Your task to perform on an android device: Go to calendar. Show me events next week Image 0: 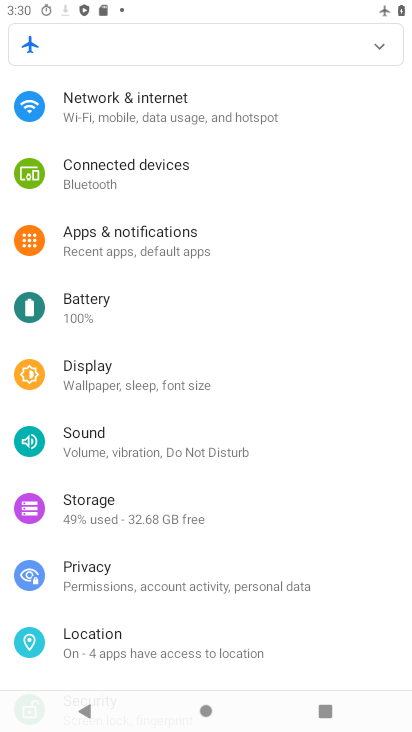
Step 0: drag from (142, 460) to (134, 237)
Your task to perform on an android device: Go to calendar. Show me events next week Image 1: 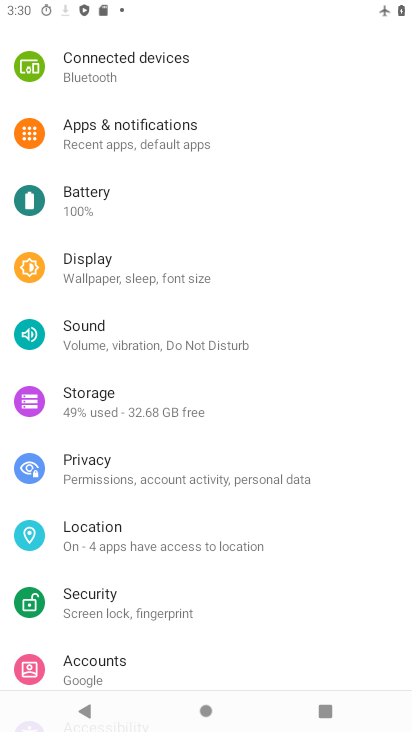
Step 1: drag from (144, 522) to (122, 209)
Your task to perform on an android device: Go to calendar. Show me events next week Image 2: 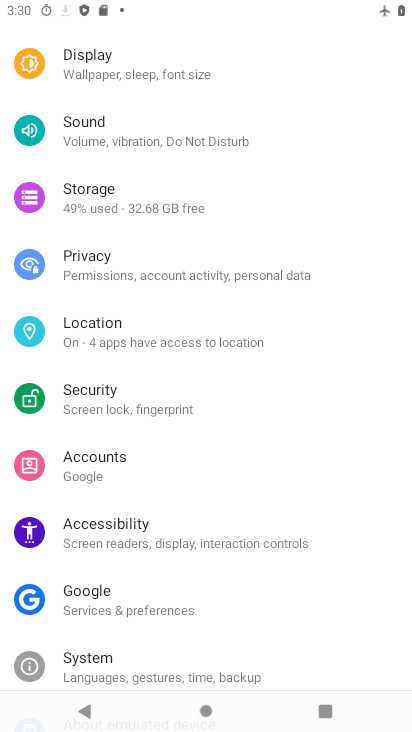
Step 2: drag from (128, 579) to (124, 268)
Your task to perform on an android device: Go to calendar. Show me events next week Image 3: 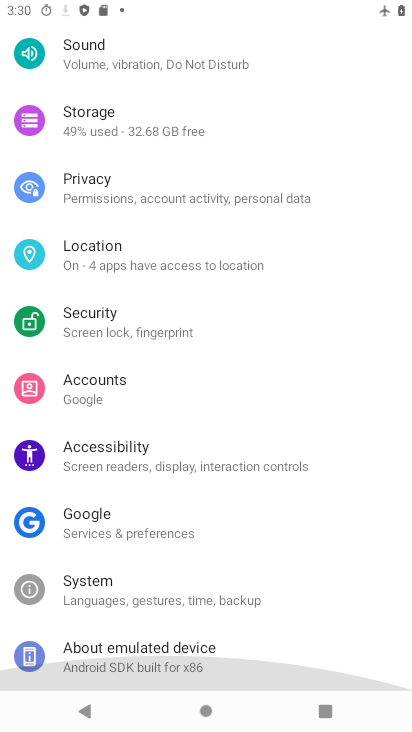
Step 3: drag from (149, 475) to (208, 234)
Your task to perform on an android device: Go to calendar. Show me events next week Image 4: 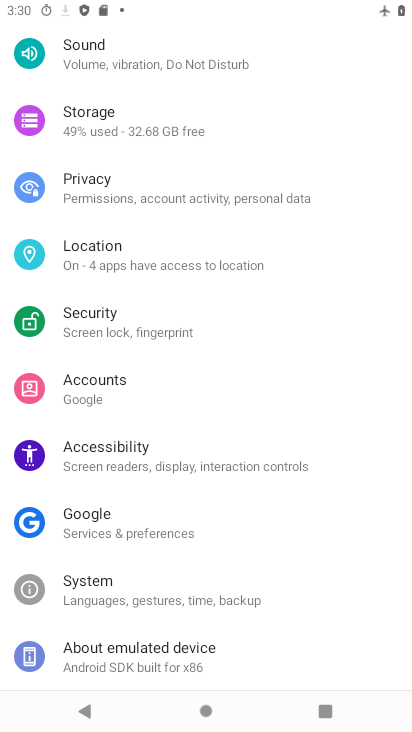
Step 4: drag from (225, 259) to (236, 624)
Your task to perform on an android device: Go to calendar. Show me events next week Image 5: 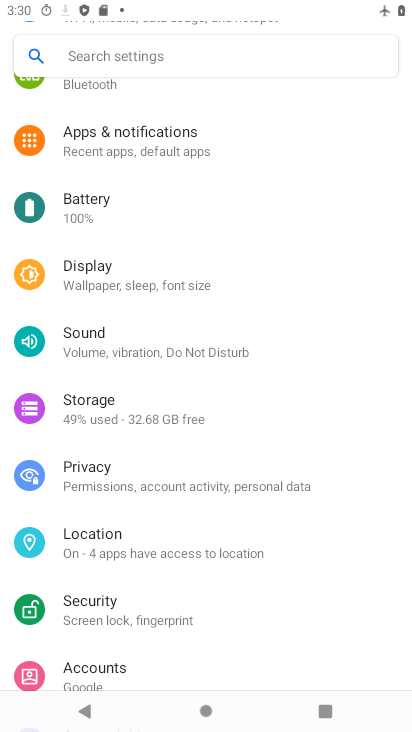
Step 5: drag from (238, 348) to (282, 614)
Your task to perform on an android device: Go to calendar. Show me events next week Image 6: 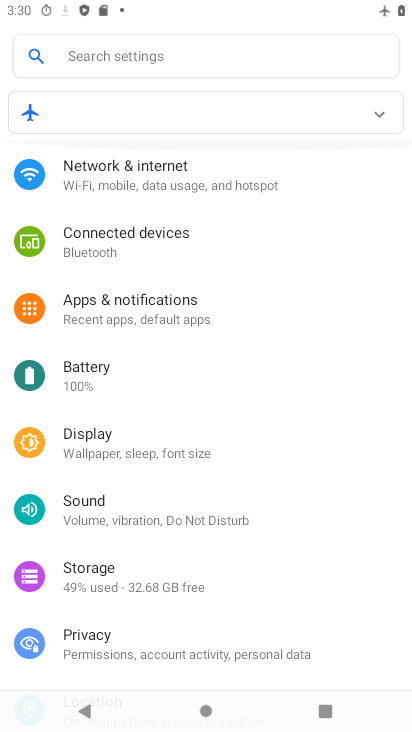
Step 6: press back button
Your task to perform on an android device: Go to calendar. Show me events next week Image 7: 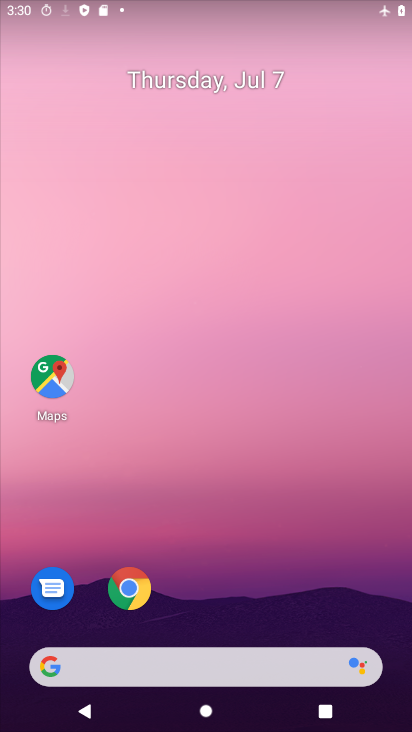
Step 7: click (86, 6)
Your task to perform on an android device: Go to calendar. Show me events next week Image 8: 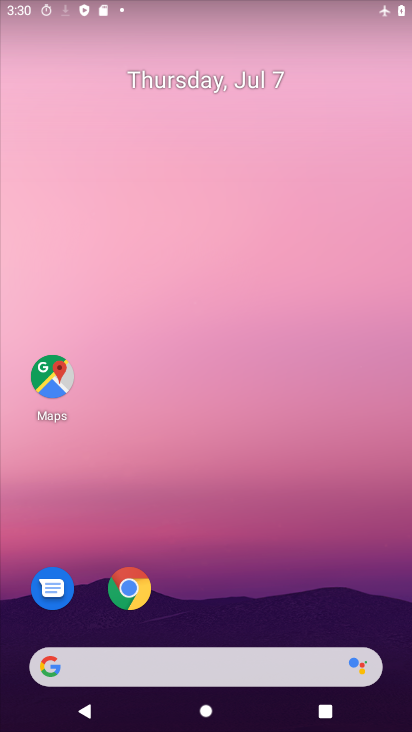
Step 8: drag from (323, 559) to (160, 52)
Your task to perform on an android device: Go to calendar. Show me events next week Image 9: 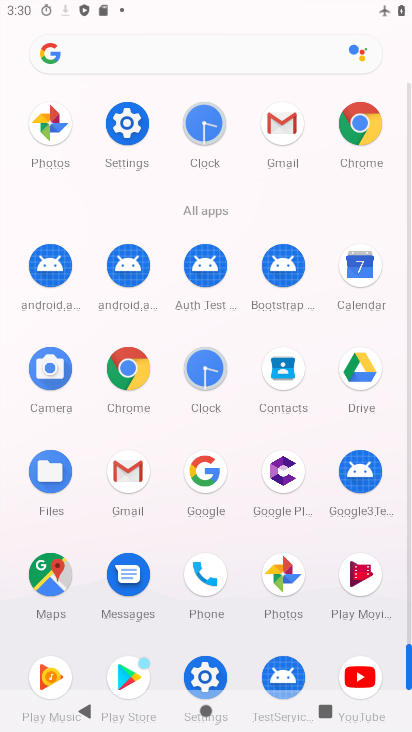
Step 9: drag from (266, 453) to (148, 110)
Your task to perform on an android device: Go to calendar. Show me events next week Image 10: 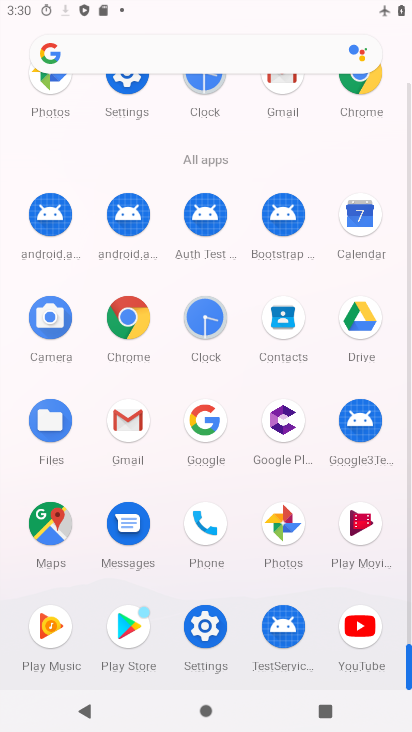
Step 10: click (363, 230)
Your task to perform on an android device: Go to calendar. Show me events next week Image 11: 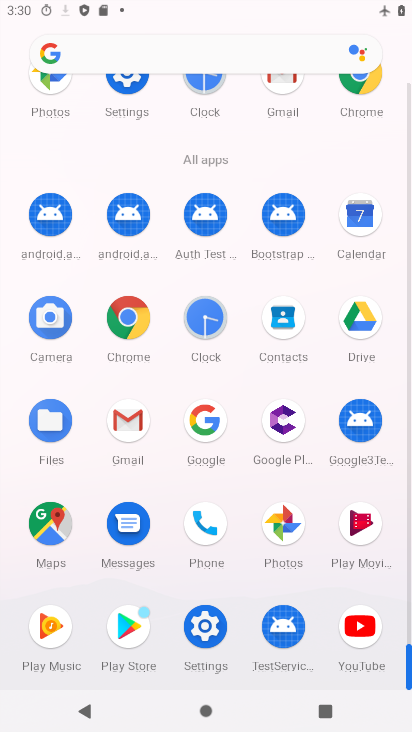
Step 11: click (363, 230)
Your task to perform on an android device: Go to calendar. Show me events next week Image 12: 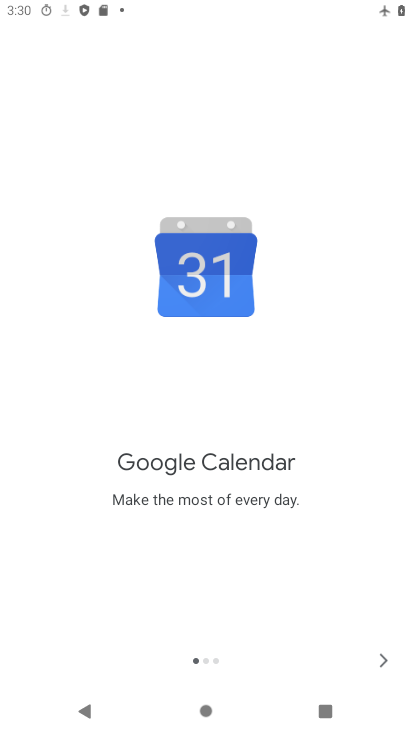
Step 12: click (364, 231)
Your task to perform on an android device: Go to calendar. Show me events next week Image 13: 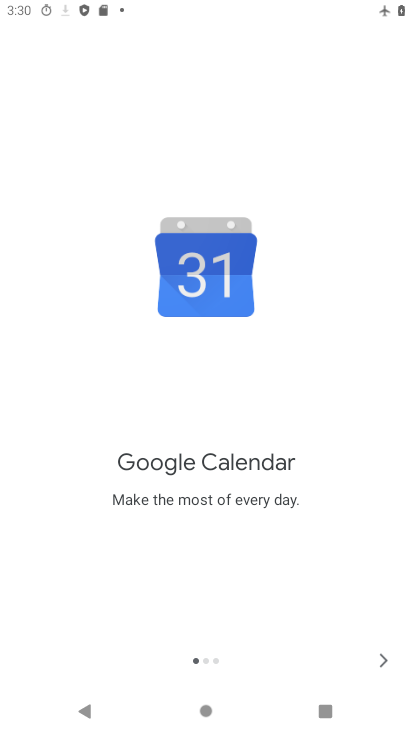
Step 13: click (383, 660)
Your task to perform on an android device: Go to calendar. Show me events next week Image 14: 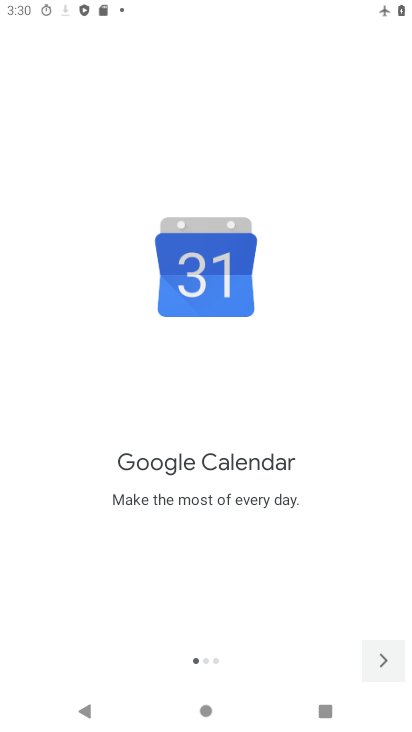
Step 14: click (386, 655)
Your task to perform on an android device: Go to calendar. Show me events next week Image 15: 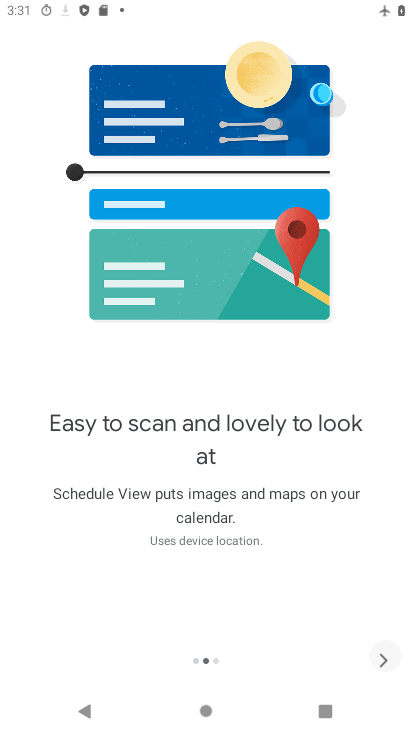
Step 15: click (392, 650)
Your task to perform on an android device: Go to calendar. Show me events next week Image 16: 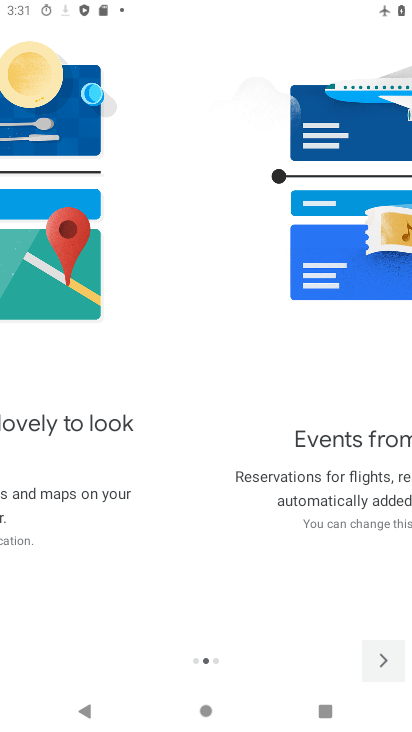
Step 16: click (393, 649)
Your task to perform on an android device: Go to calendar. Show me events next week Image 17: 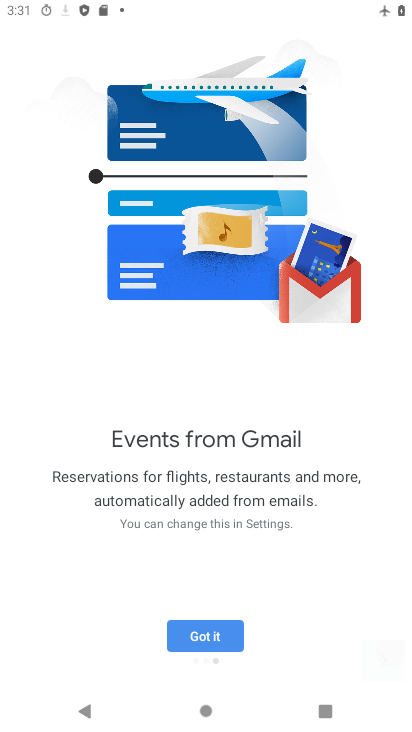
Step 17: click (393, 649)
Your task to perform on an android device: Go to calendar. Show me events next week Image 18: 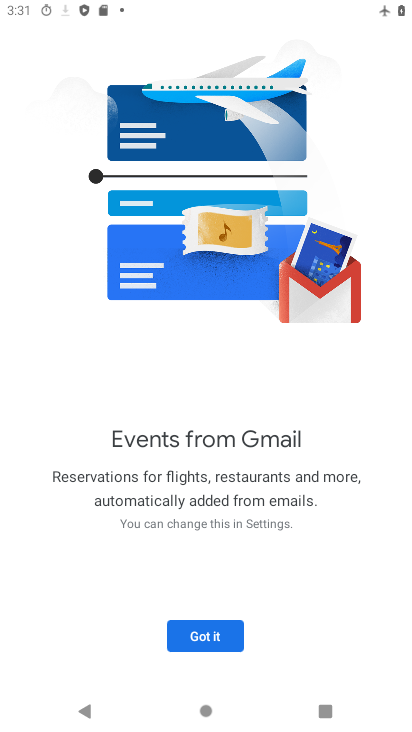
Step 18: click (393, 649)
Your task to perform on an android device: Go to calendar. Show me events next week Image 19: 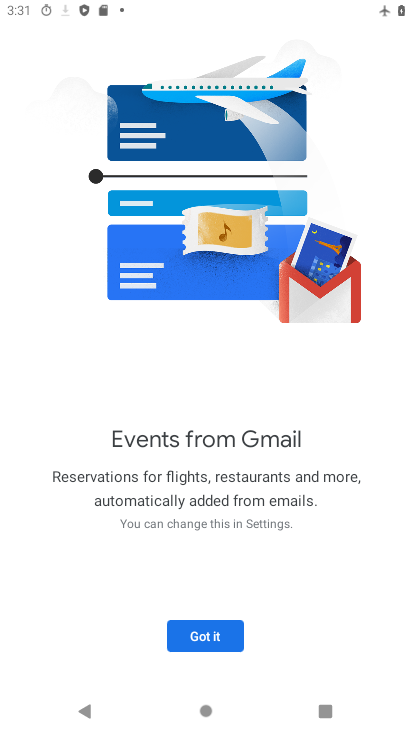
Step 19: click (389, 647)
Your task to perform on an android device: Go to calendar. Show me events next week Image 20: 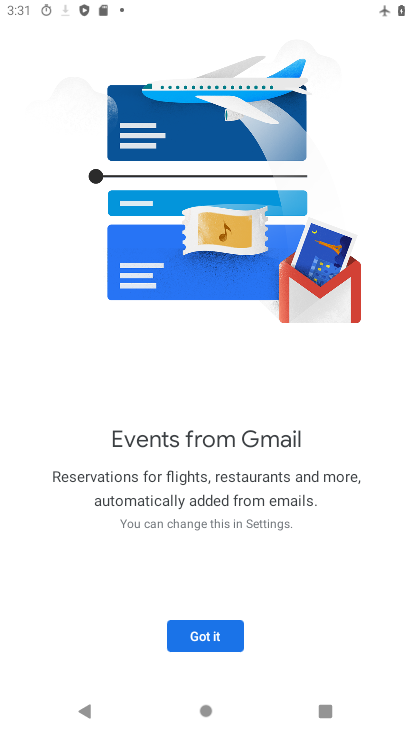
Step 20: click (219, 633)
Your task to perform on an android device: Go to calendar. Show me events next week Image 21: 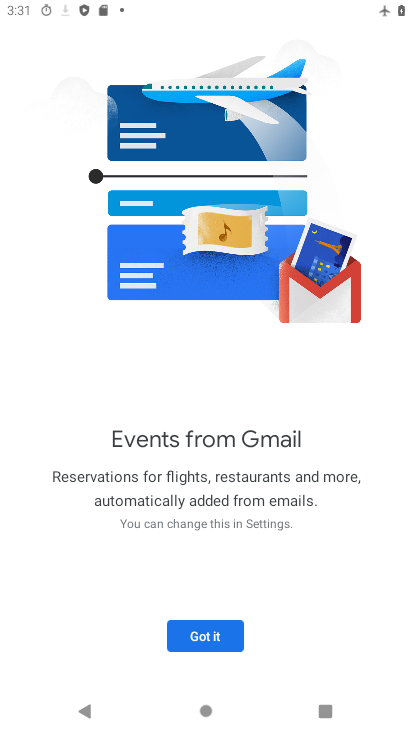
Step 21: click (219, 637)
Your task to perform on an android device: Go to calendar. Show me events next week Image 22: 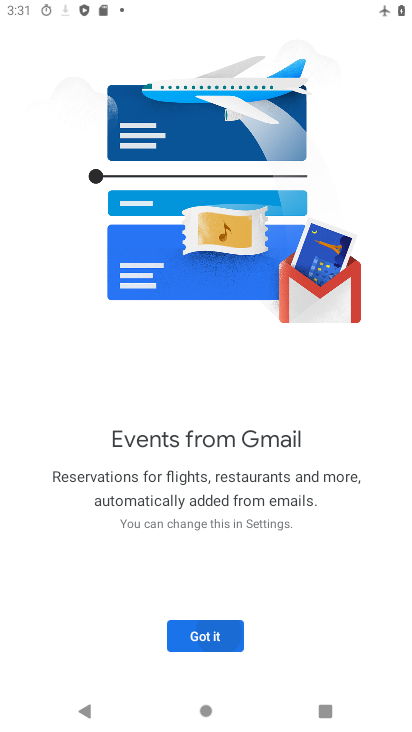
Step 22: click (219, 637)
Your task to perform on an android device: Go to calendar. Show me events next week Image 23: 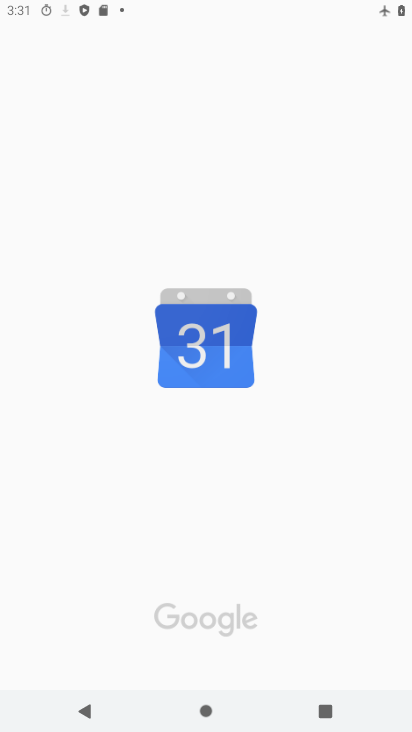
Step 23: click (236, 650)
Your task to perform on an android device: Go to calendar. Show me events next week Image 24: 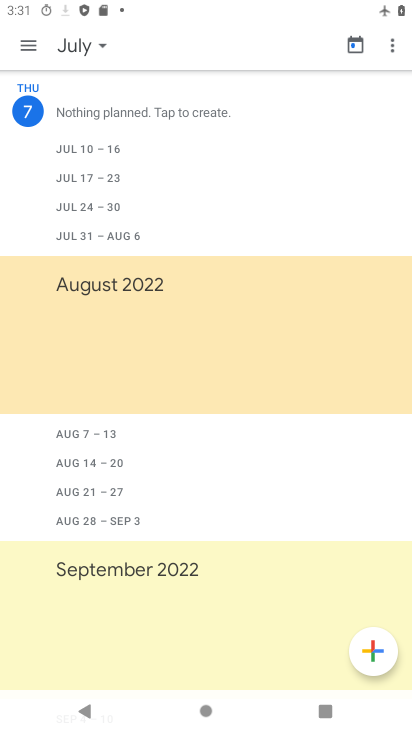
Step 24: click (117, 173)
Your task to perform on an android device: Go to calendar. Show me events next week Image 25: 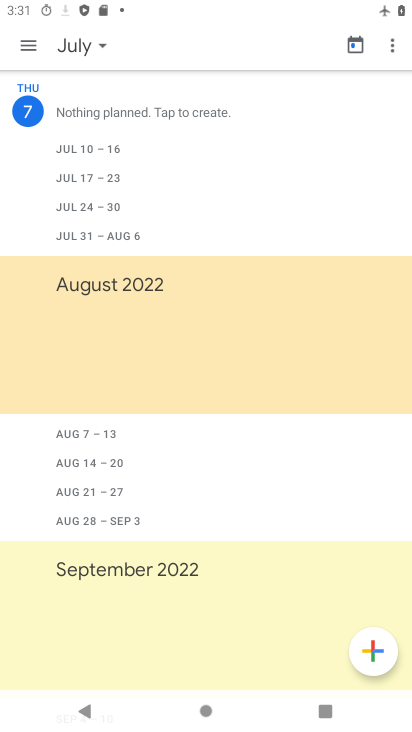
Step 25: click (110, 213)
Your task to perform on an android device: Go to calendar. Show me events next week Image 26: 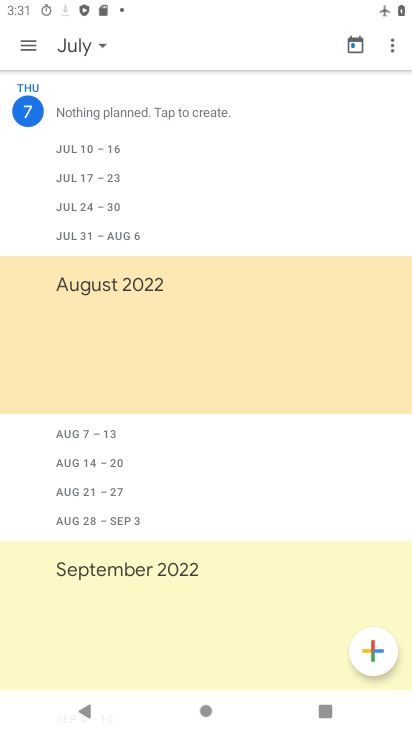
Step 26: task complete